Your task to perform on an android device: Go to display settings Image 0: 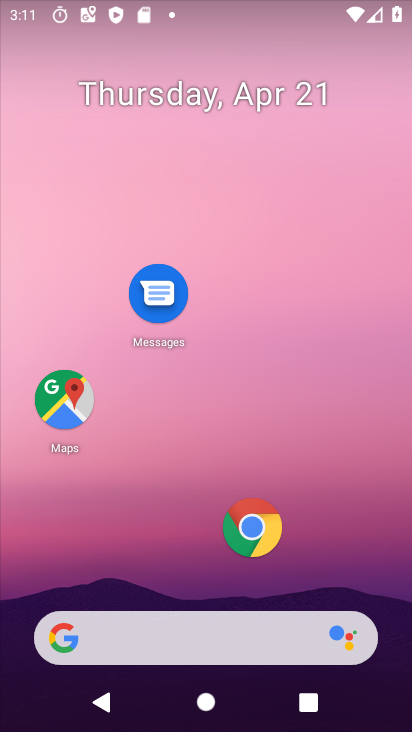
Step 0: drag from (190, 612) to (301, 283)
Your task to perform on an android device: Go to display settings Image 1: 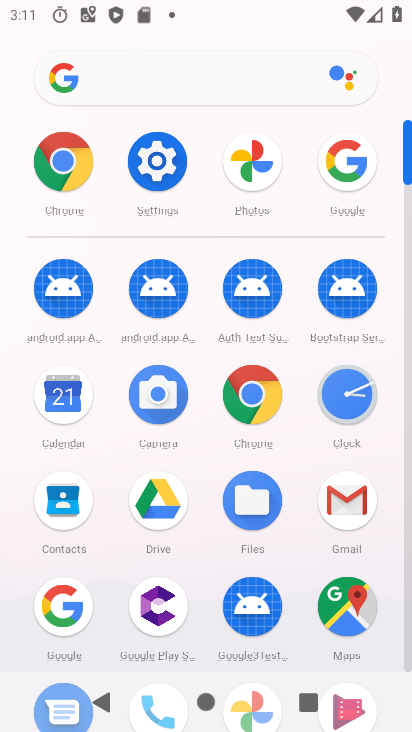
Step 1: click (148, 165)
Your task to perform on an android device: Go to display settings Image 2: 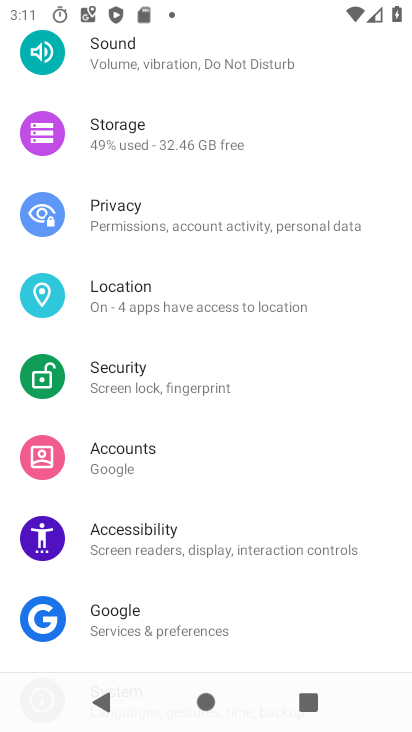
Step 2: drag from (172, 158) to (141, 486)
Your task to perform on an android device: Go to display settings Image 3: 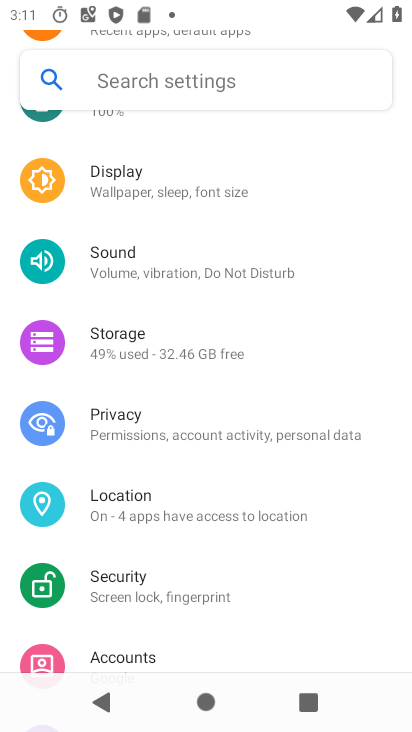
Step 3: click (110, 189)
Your task to perform on an android device: Go to display settings Image 4: 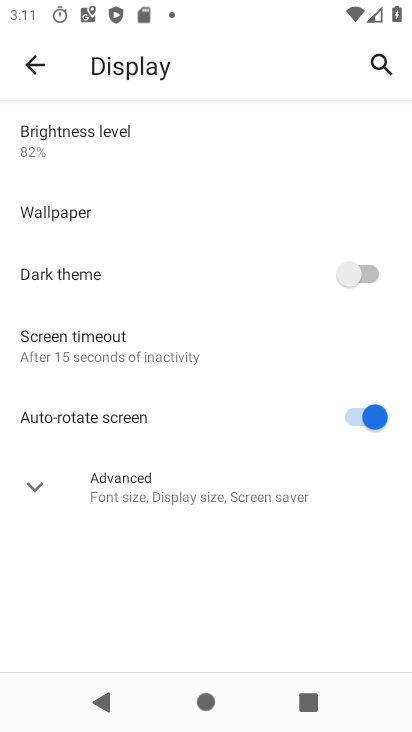
Step 4: click (102, 497)
Your task to perform on an android device: Go to display settings Image 5: 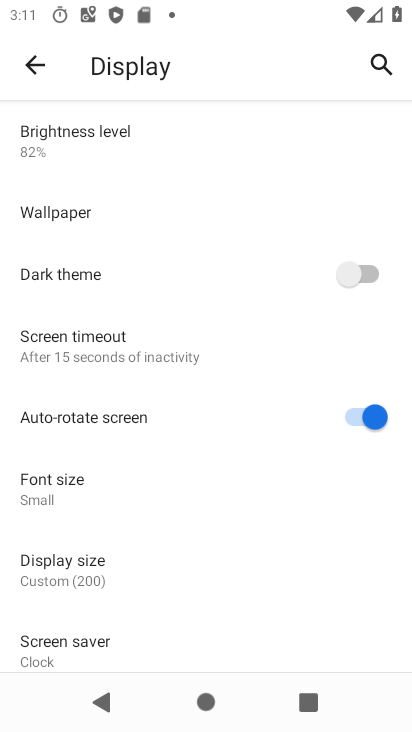
Step 5: task complete